Your task to perform on an android device: Go to Amazon Image 0: 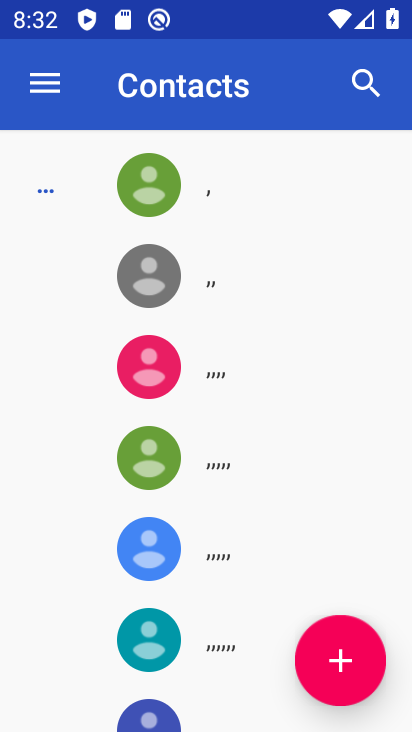
Step 0: press home button
Your task to perform on an android device: Go to Amazon Image 1: 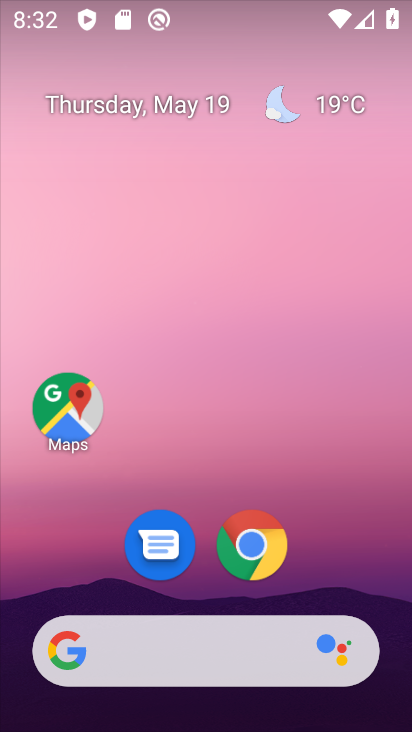
Step 1: click (244, 540)
Your task to perform on an android device: Go to Amazon Image 2: 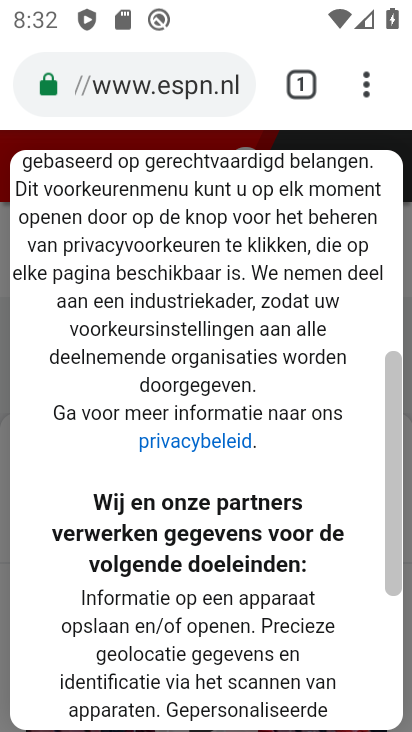
Step 2: click (199, 79)
Your task to perform on an android device: Go to Amazon Image 3: 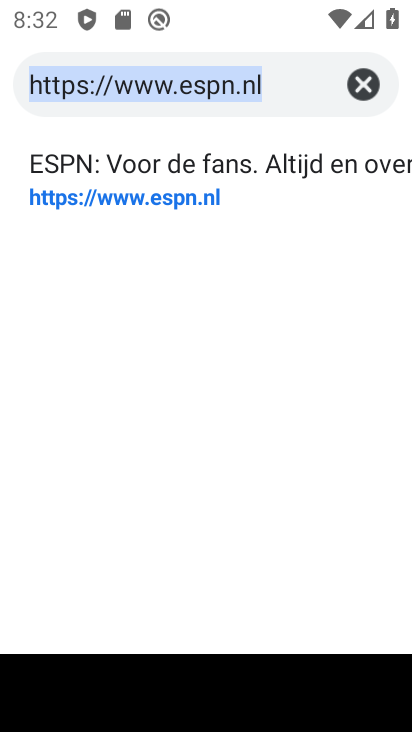
Step 3: type "amazon"
Your task to perform on an android device: Go to Amazon Image 4: 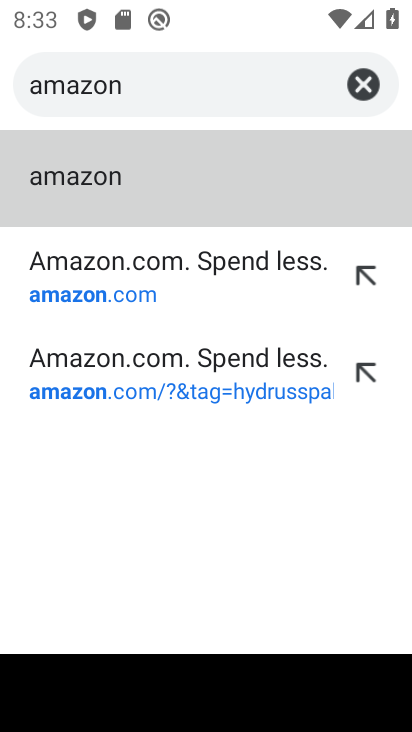
Step 4: click (229, 271)
Your task to perform on an android device: Go to Amazon Image 5: 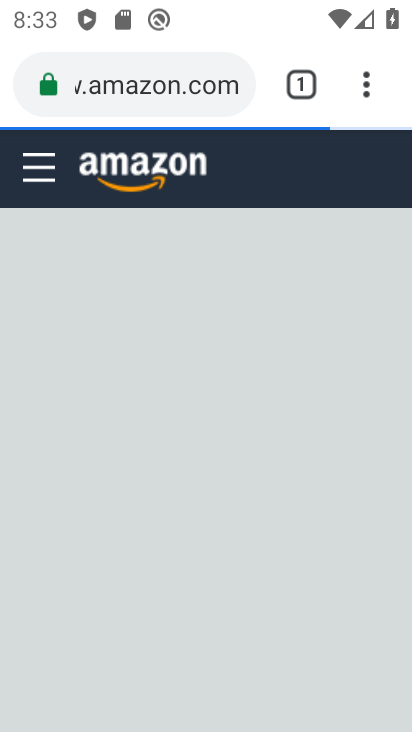
Step 5: task complete